Your task to perform on an android device: change notification settings in the gmail app Image 0: 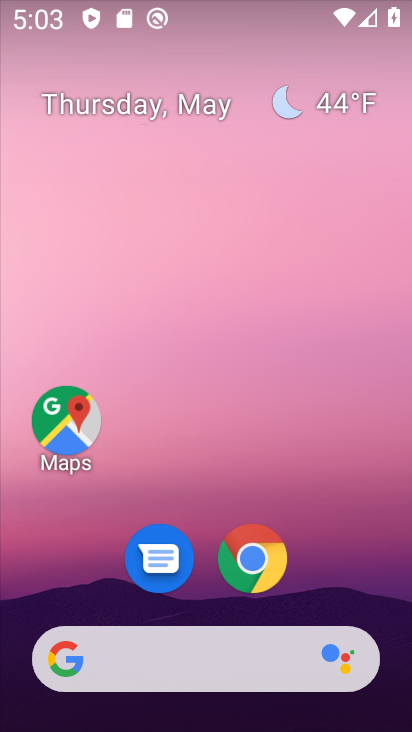
Step 0: drag from (345, 521) to (255, 22)
Your task to perform on an android device: change notification settings in the gmail app Image 1: 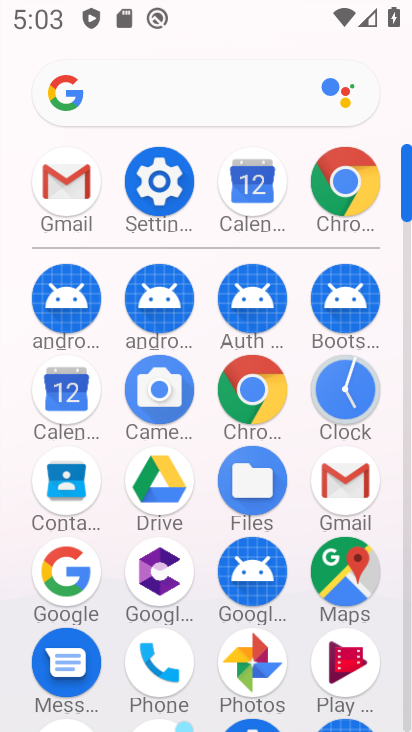
Step 1: drag from (4, 576) to (20, 276)
Your task to perform on an android device: change notification settings in the gmail app Image 2: 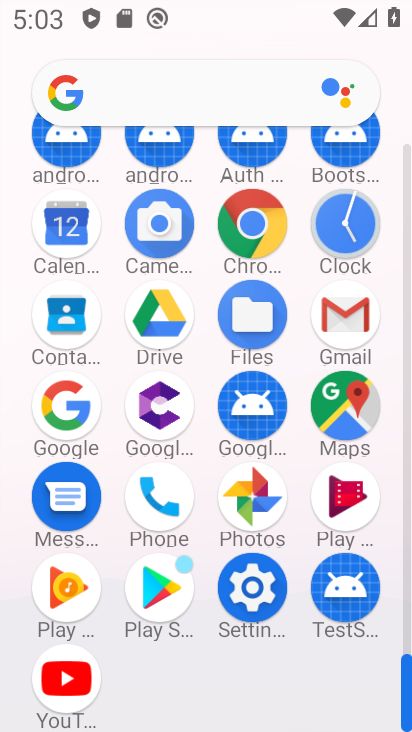
Step 2: drag from (0, 536) to (11, 303)
Your task to perform on an android device: change notification settings in the gmail app Image 3: 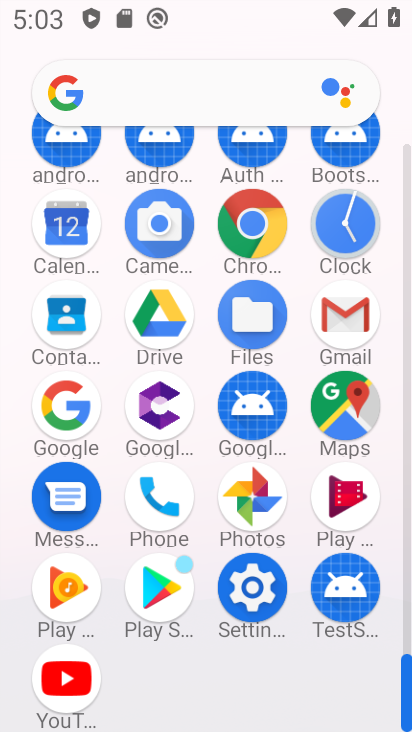
Step 3: click (343, 309)
Your task to perform on an android device: change notification settings in the gmail app Image 4: 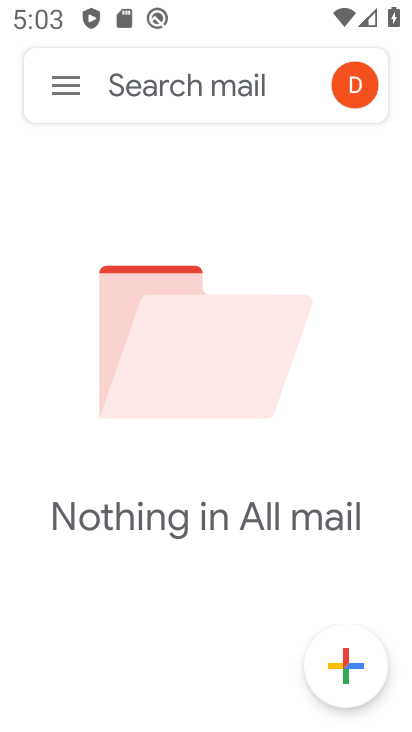
Step 4: click (60, 92)
Your task to perform on an android device: change notification settings in the gmail app Image 5: 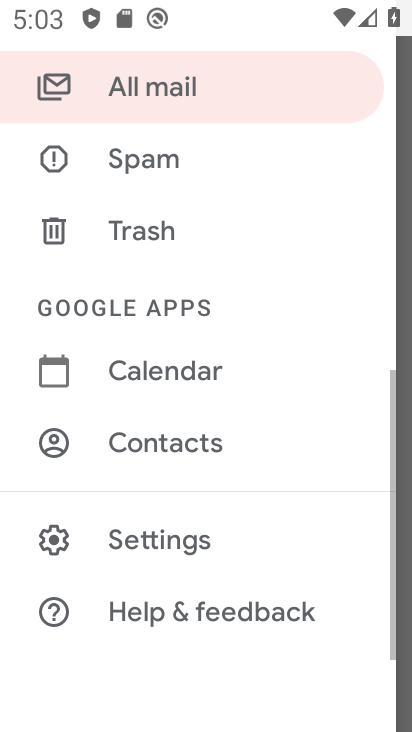
Step 5: drag from (192, 505) to (222, 94)
Your task to perform on an android device: change notification settings in the gmail app Image 6: 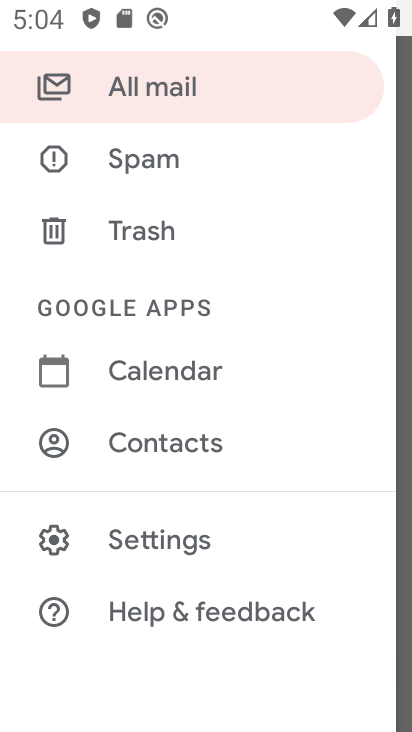
Step 6: click (178, 521)
Your task to perform on an android device: change notification settings in the gmail app Image 7: 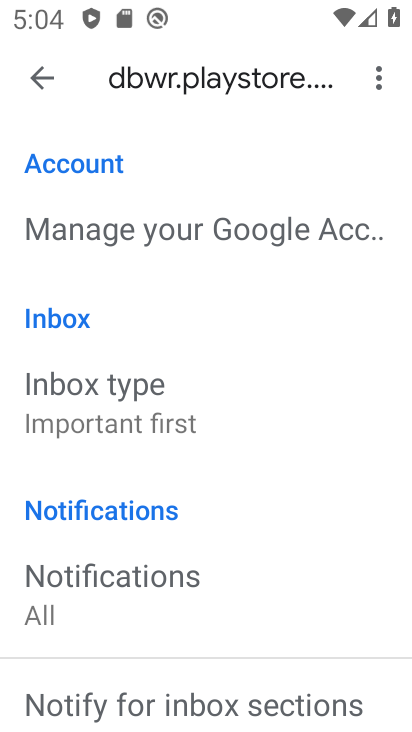
Step 7: drag from (248, 598) to (276, 211)
Your task to perform on an android device: change notification settings in the gmail app Image 8: 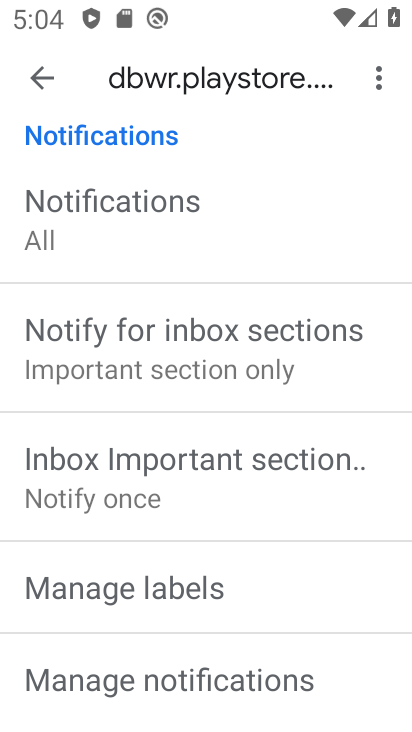
Step 8: drag from (227, 595) to (251, 197)
Your task to perform on an android device: change notification settings in the gmail app Image 9: 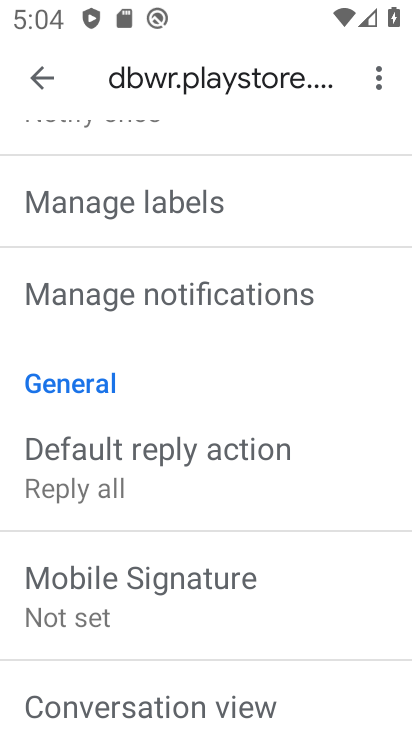
Step 9: click (233, 297)
Your task to perform on an android device: change notification settings in the gmail app Image 10: 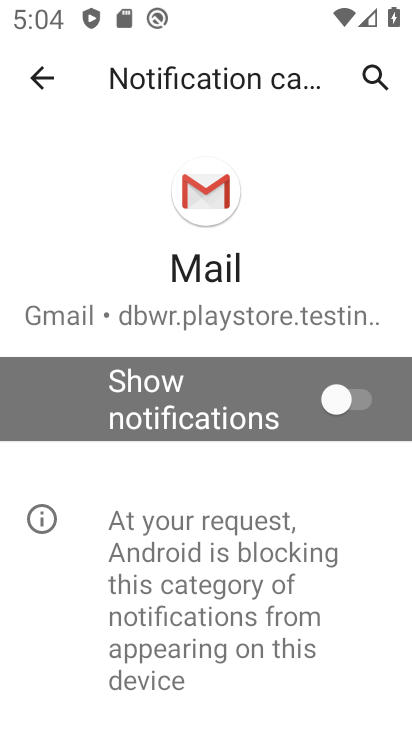
Step 10: drag from (201, 575) to (238, 133)
Your task to perform on an android device: change notification settings in the gmail app Image 11: 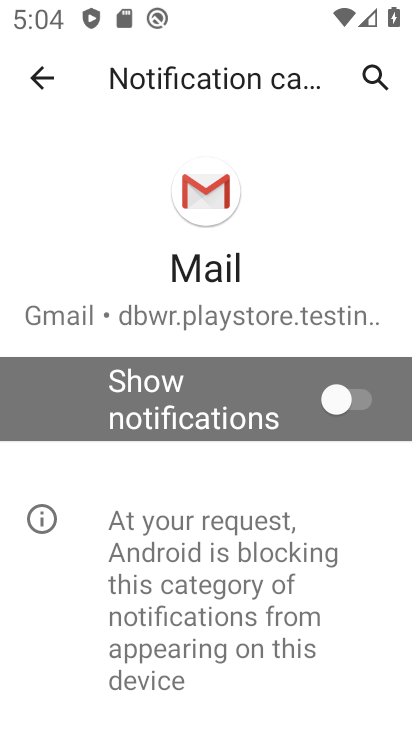
Step 11: click (40, 79)
Your task to perform on an android device: change notification settings in the gmail app Image 12: 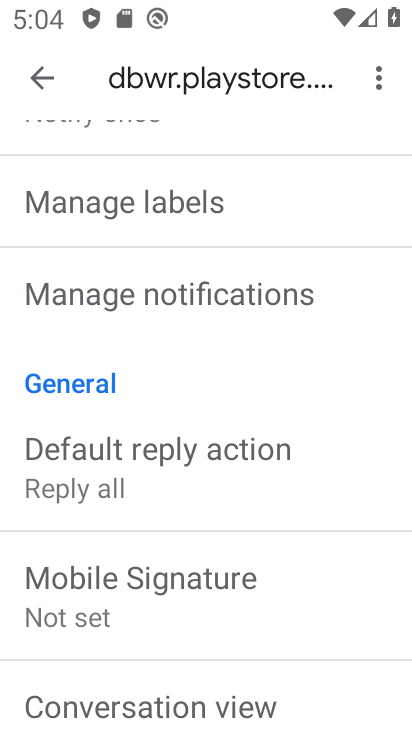
Step 12: click (199, 281)
Your task to perform on an android device: change notification settings in the gmail app Image 13: 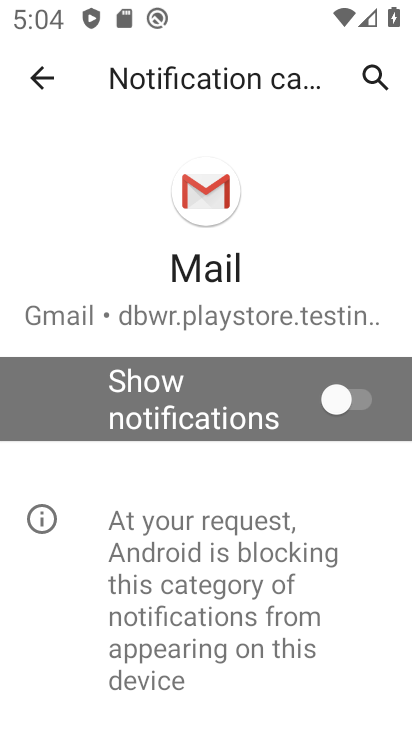
Step 13: click (356, 390)
Your task to perform on an android device: change notification settings in the gmail app Image 14: 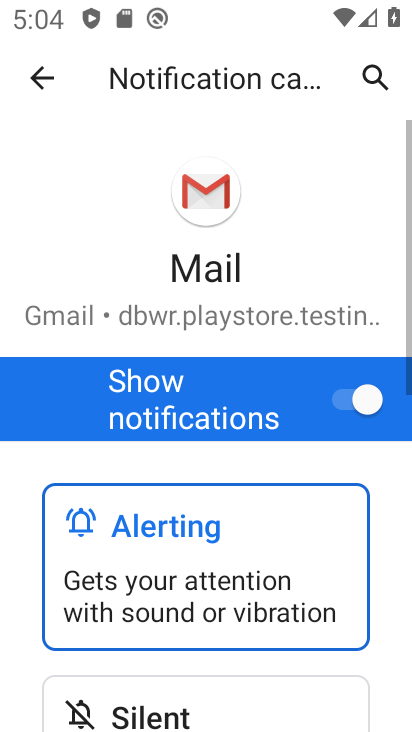
Step 14: task complete